Your task to perform on an android device: Clear all items from cart on ebay.com. Search for "alienware area 51" on ebay.com, select the first entry, and add it to the cart. Image 0: 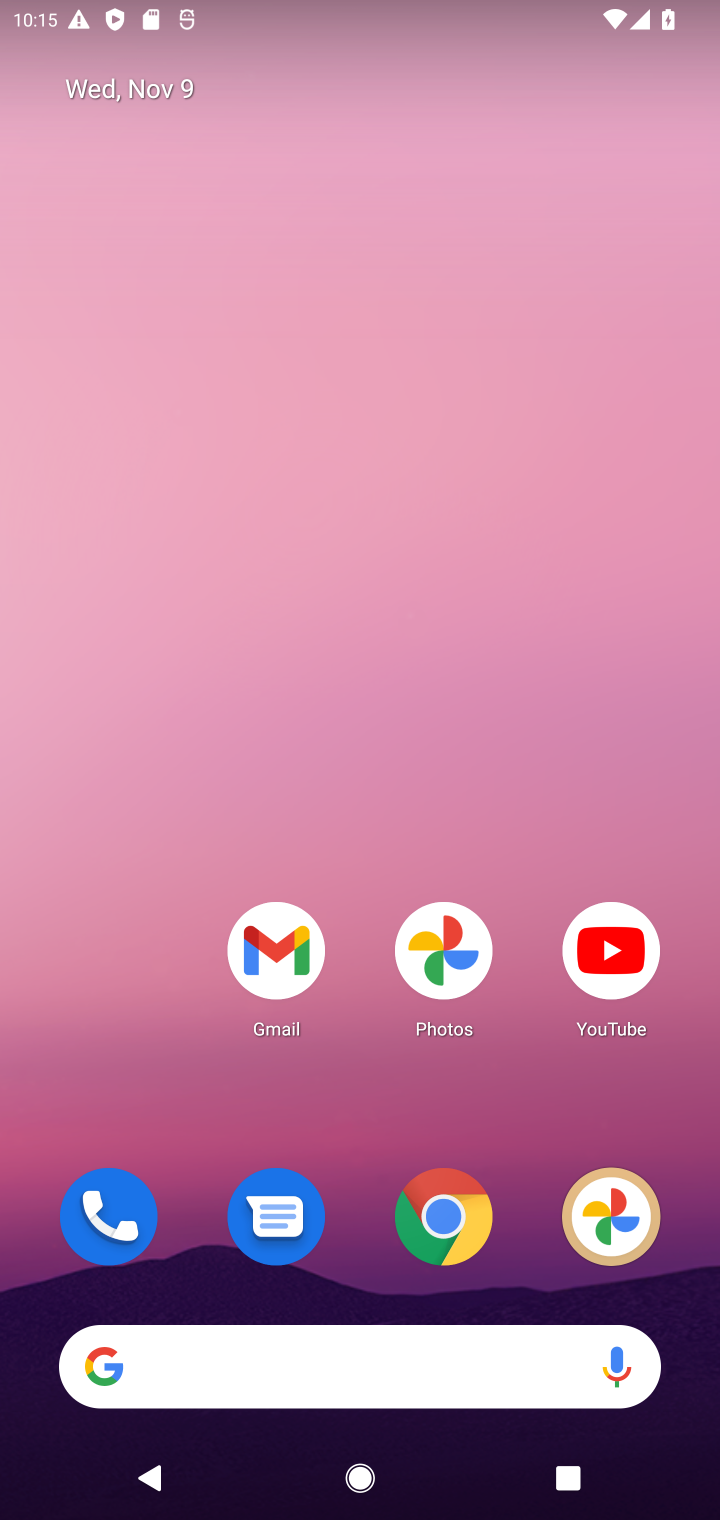
Step 0: drag from (346, 1129) to (344, 33)
Your task to perform on an android device: Clear all items from cart on ebay.com. Search for "alienware area 51" on ebay.com, select the first entry, and add it to the cart. Image 1: 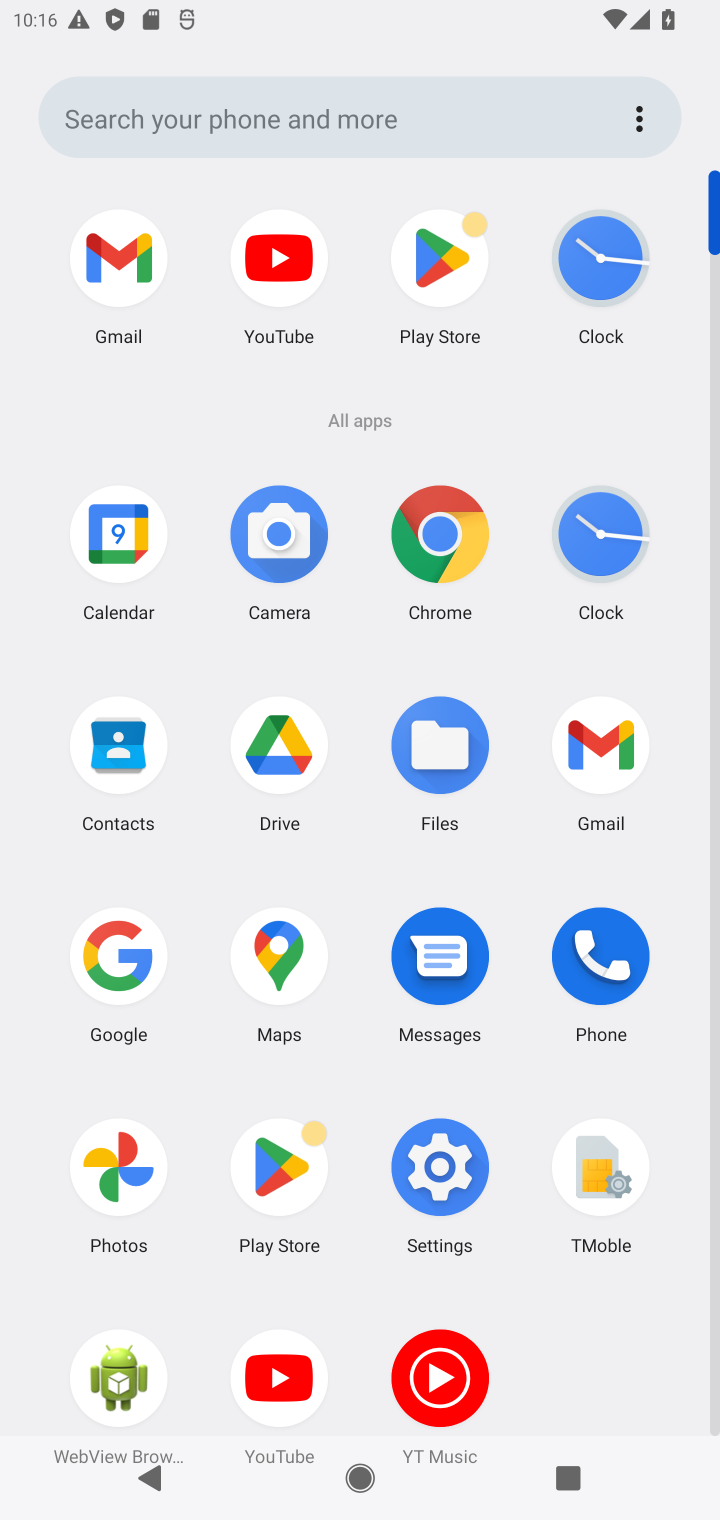
Step 1: click (439, 536)
Your task to perform on an android device: Clear all items from cart on ebay.com. Search for "alienware area 51" on ebay.com, select the first entry, and add it to the cart. Image 2: 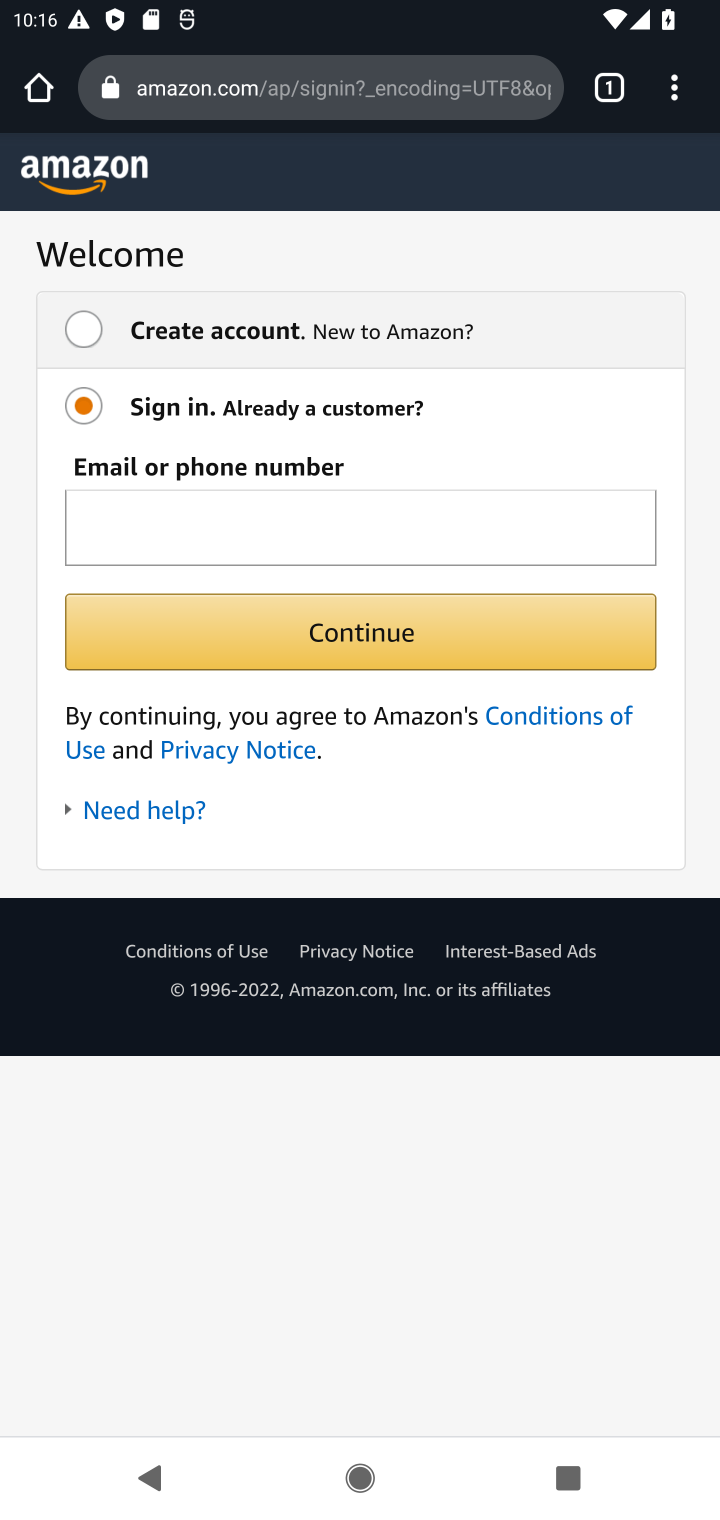
Step 2: click (284, 88)
Your task to perform on an android device: Clear all items from cart on ebay.com. Search for "alienware area 51" on ebay.com, select the first entry, and add it to the cart. Image 3: 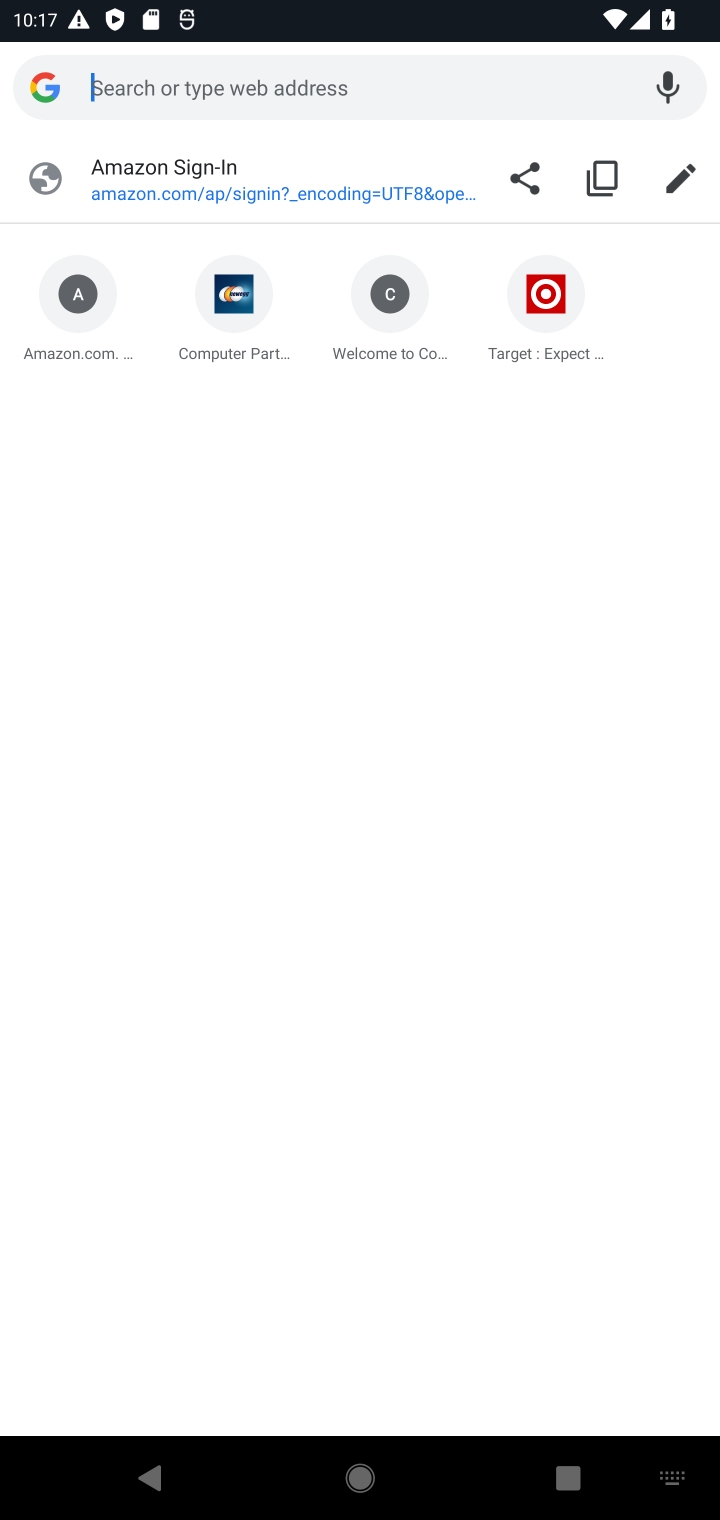
Step 3: type "ebay.com"
Your task to perform on an android device: Clear all items from cart on ebay.com. Search for "alienware area 51" on ebay.com, select the first entry, and add it to the cart. Image 4: 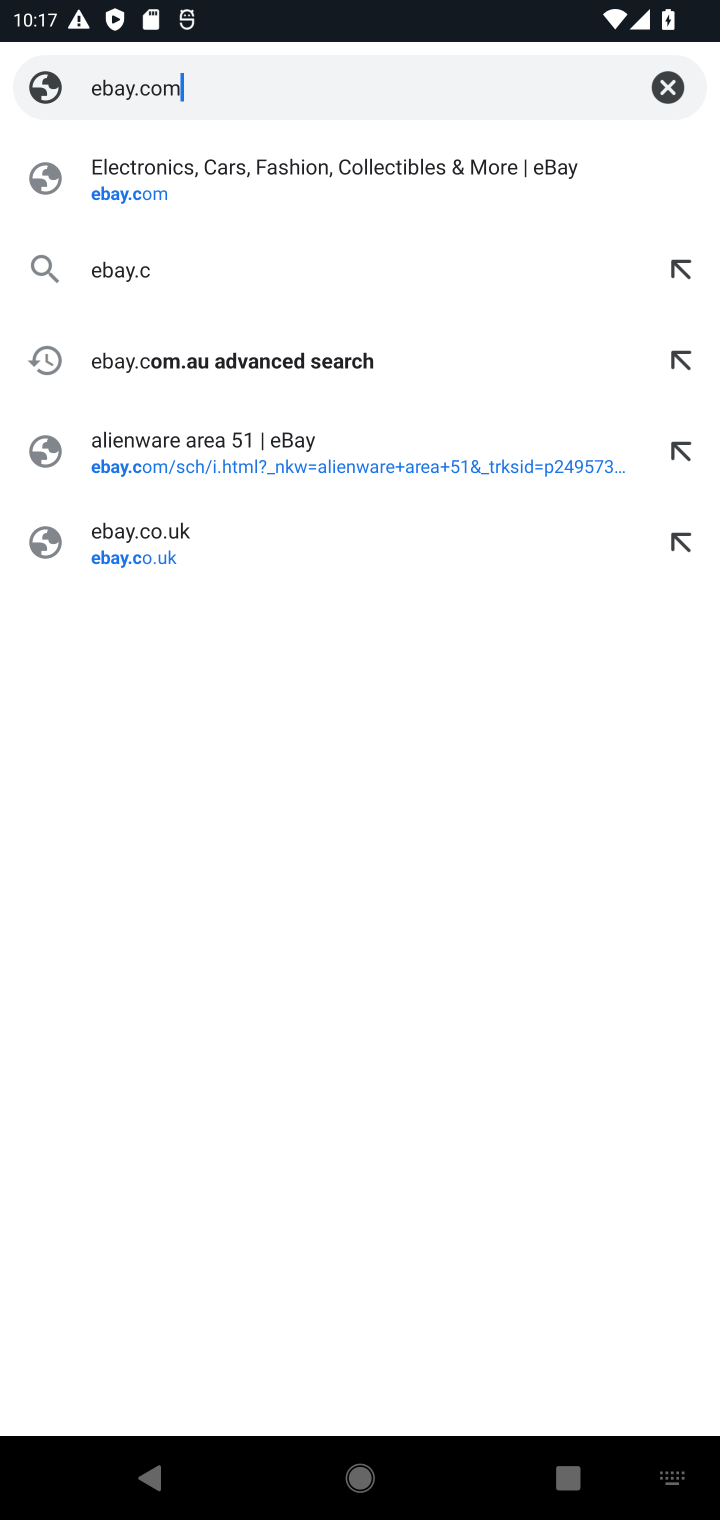
Step 4: press enter
Your task to perform on an android device: Clear all items from cart on ebay.com. Search for "alienware area 51" on ebay.com, select the first entry, and add it to the cart. Image 5: 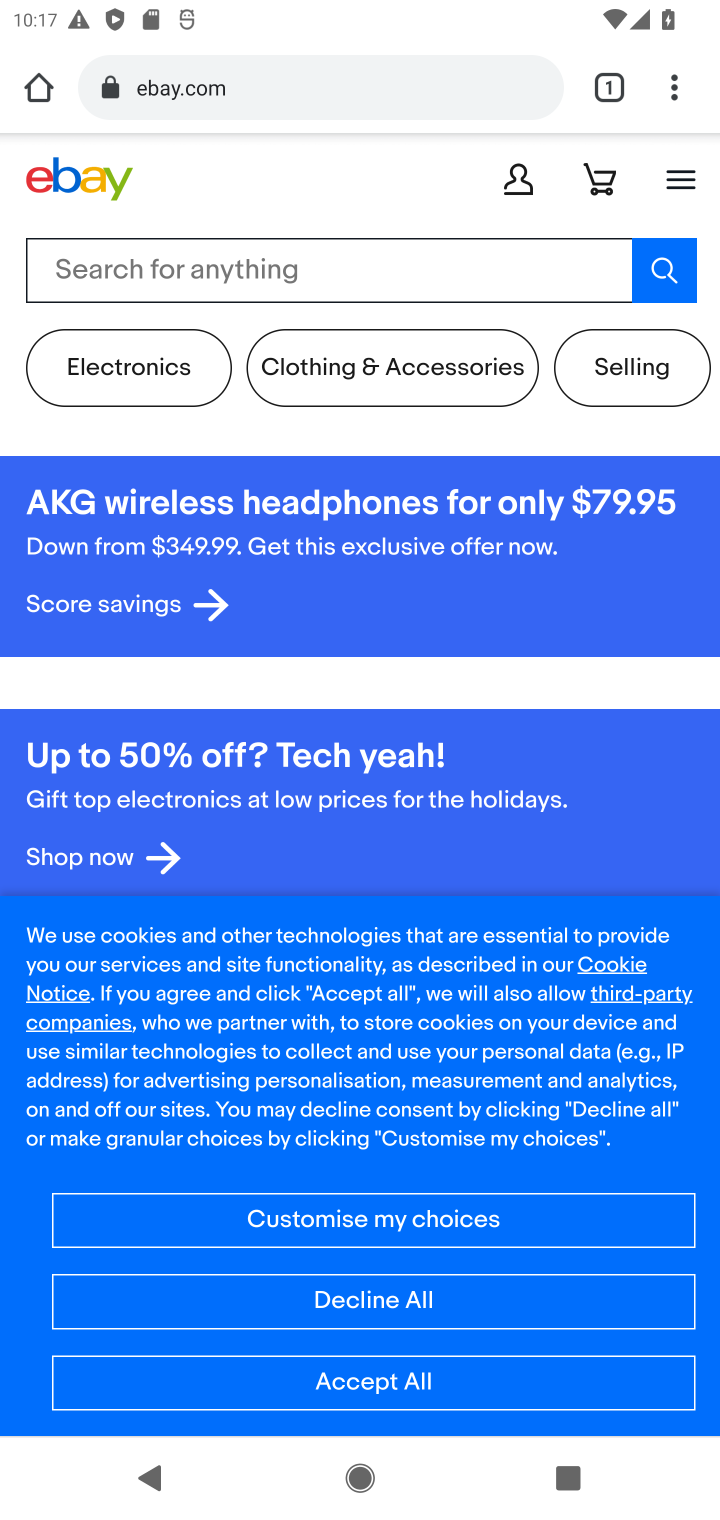
Step 5: click (608, 168)
Your task to perform on an android device: Clear all items from cart on ebay.com. Search for "alienware area 51" on ebay.com, select the first entry, and add it to the cart. Image 6: 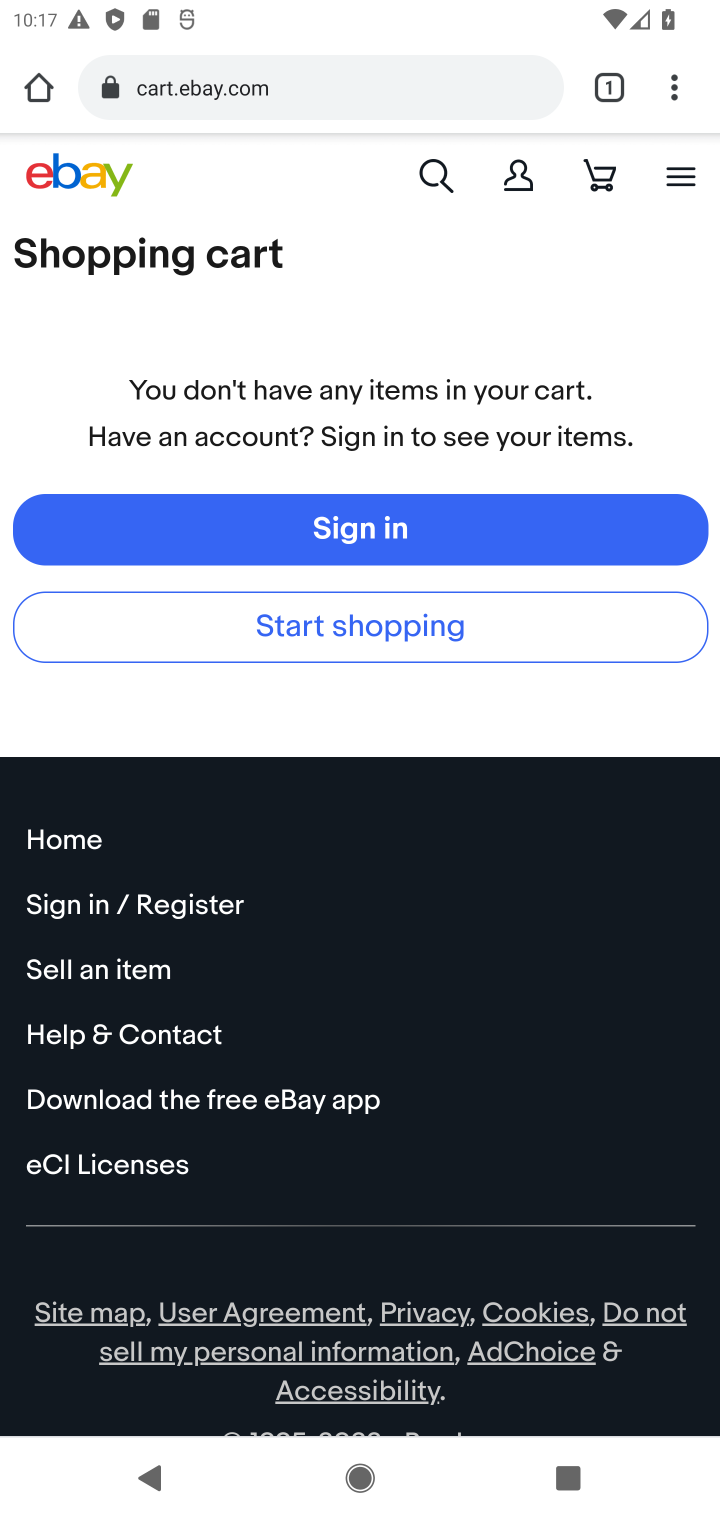
Step 6: click (449, 180)
Your task to perform on an android device: Clear all items from cart on ebay.com. Search for "alienware area 51" on ebay.com, select the first entry, and add it to the cart. Image 7: 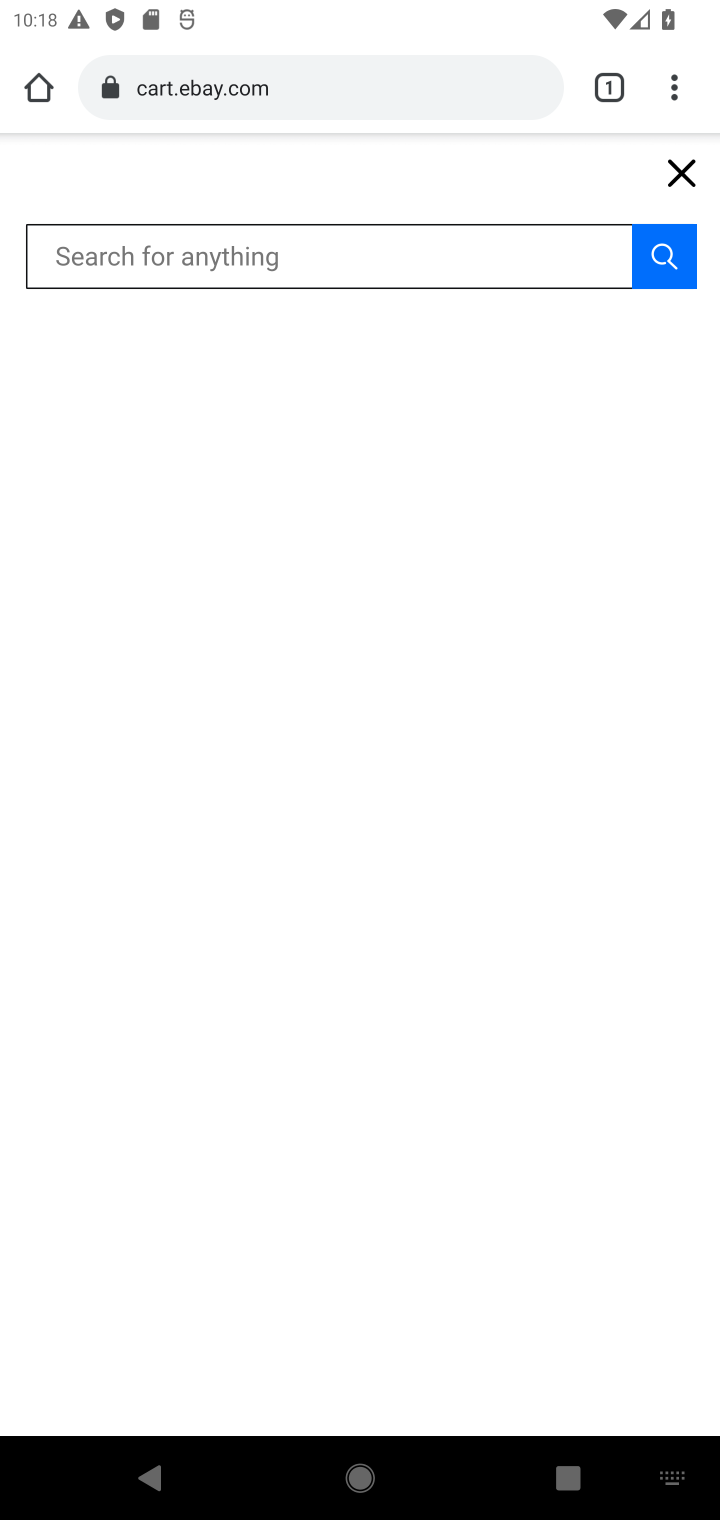
Step 7: type "alienware area 51"
Your task to perform on an android device: Clear all items from cart on ebay.com. Search for "alienware area 51" on ebay.com, select the first entry, and add it to the cart. Image 8: 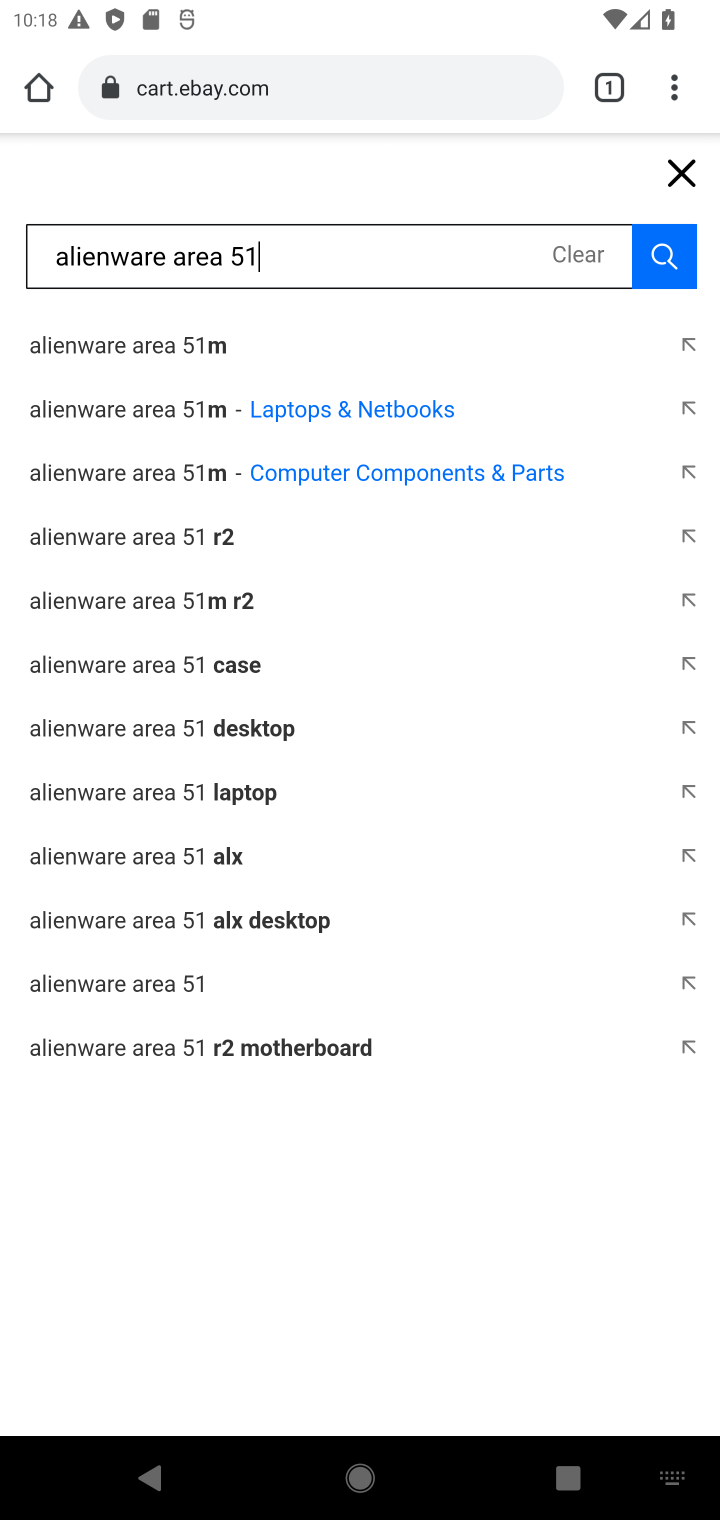
Step 8: press enter
Your task to perform on an android device: Clear all items from cart on ebay.com. Search for "alienware area 51" on ebay.com, select the first entry, and add it to the cart. Image 9: 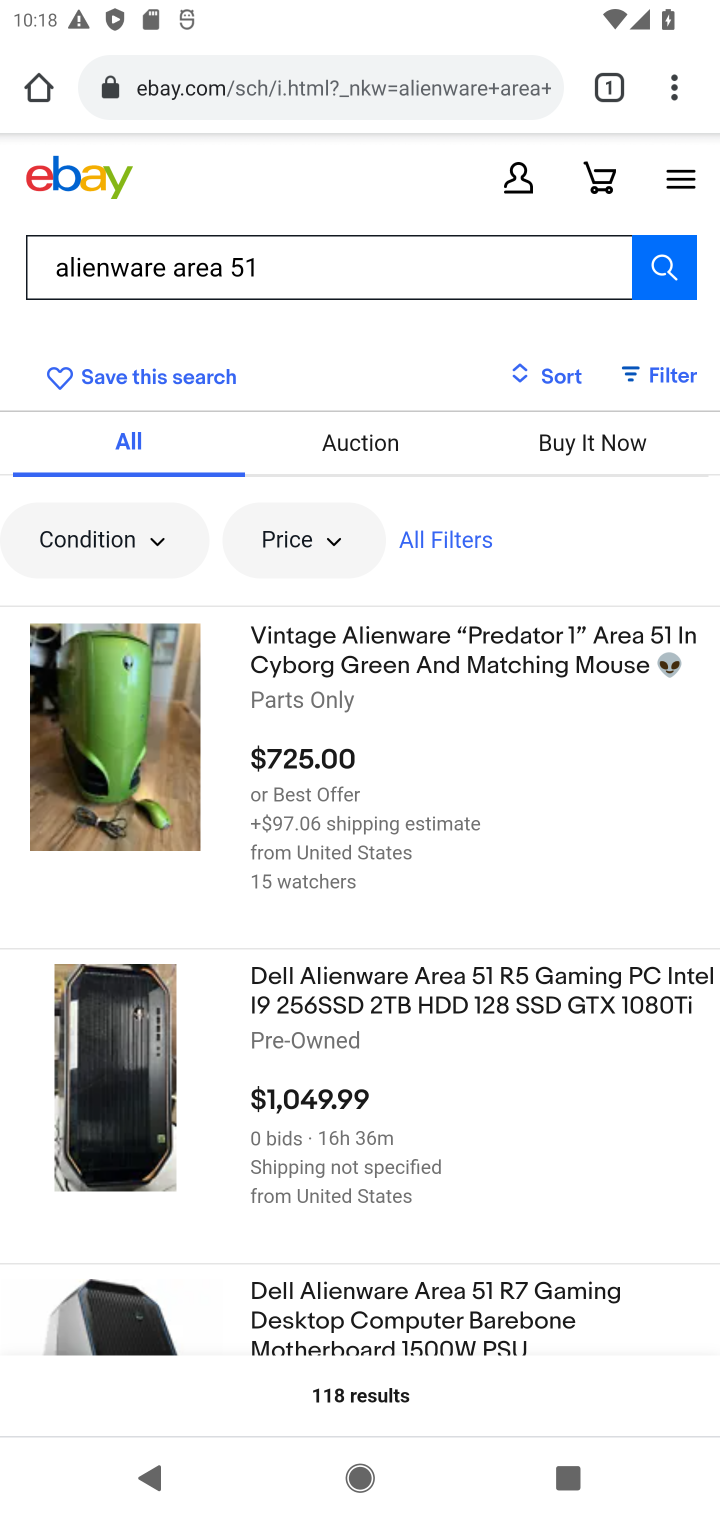
Step 9: click (130, 724)
Your task to perform on an android device: Clear all items from cart on ebay.com. Search for "alienware area 51" on ebay.com, select the first entry, and add it to the cart. Image 10: 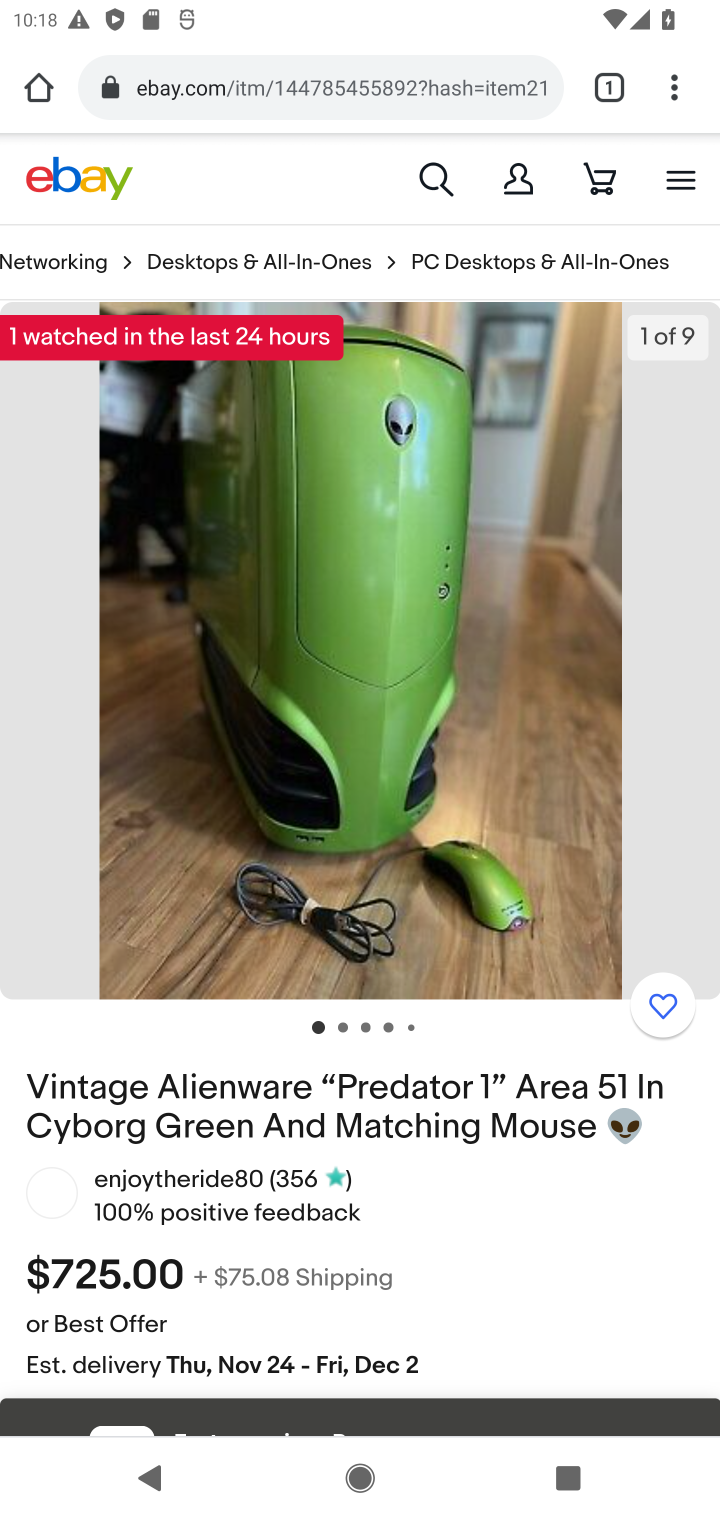
Step 10: drag from (425, 949) to (330, 158)
Your task to perform on an android device: Clear all items from cart on ebay.com. Search for "alienware area 51" on ebay.com, select the first entry, and add it to the cart. Image 11: 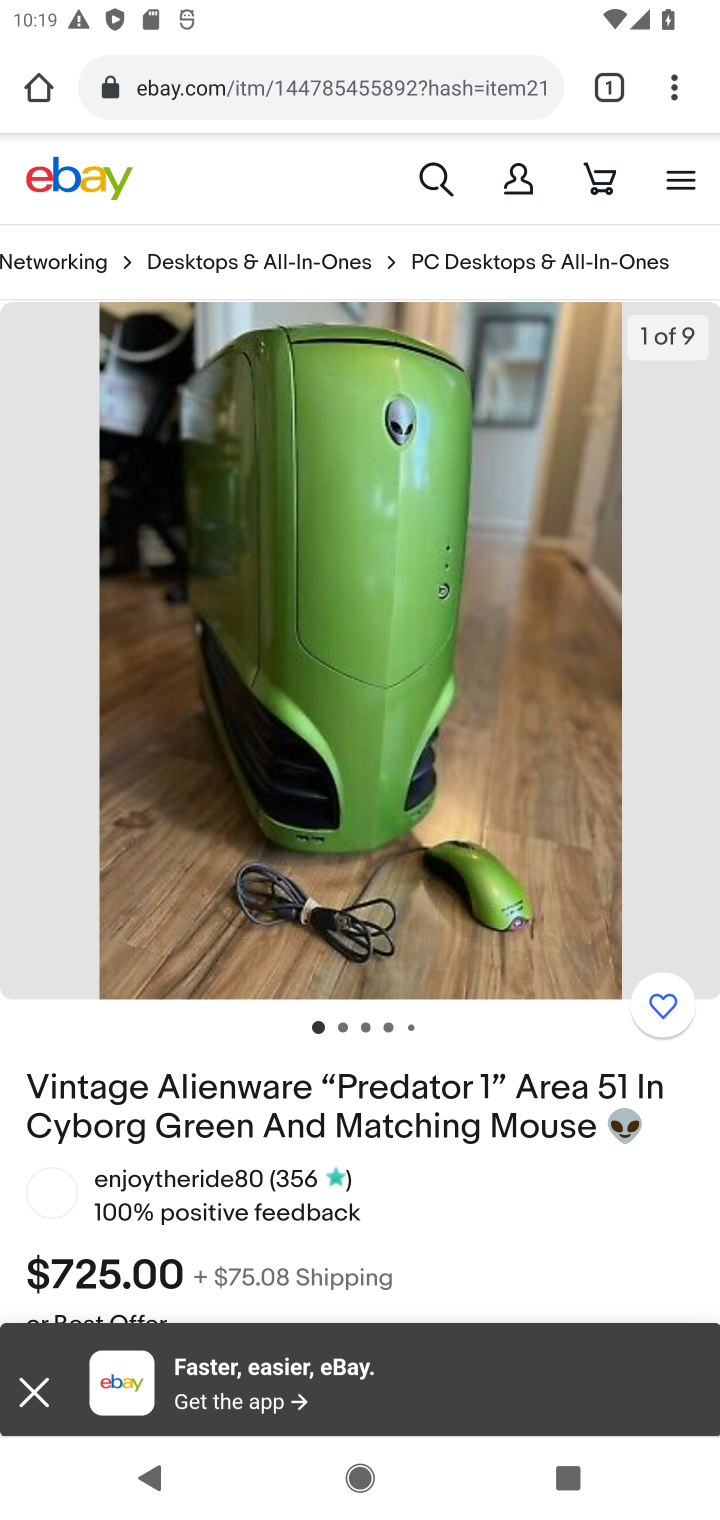
Step 11: drag from (386, 952) to (378, 228)
Your task to perform on an android device: Clear all items from cart on ebay.com. Search for "alienware area 51" on ebay.com, select the first entry, and add it to the cart. Image 12: 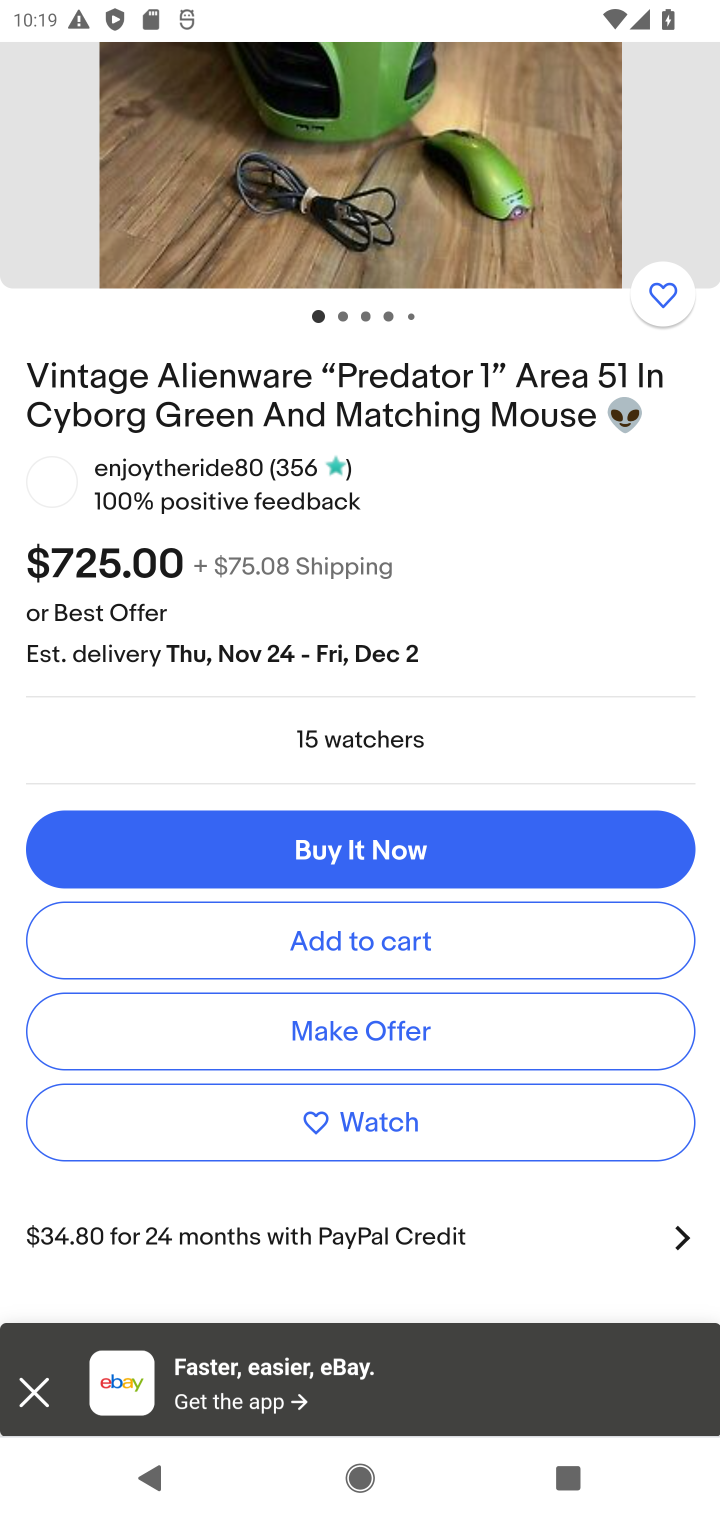
Step 12: click (412, 922)
Your task to perform on an android device: Clear all items from cart on ebay.com. Search for "alienware area 51" on ebay.com, select the first entry, and add it to the cart. Image 13: 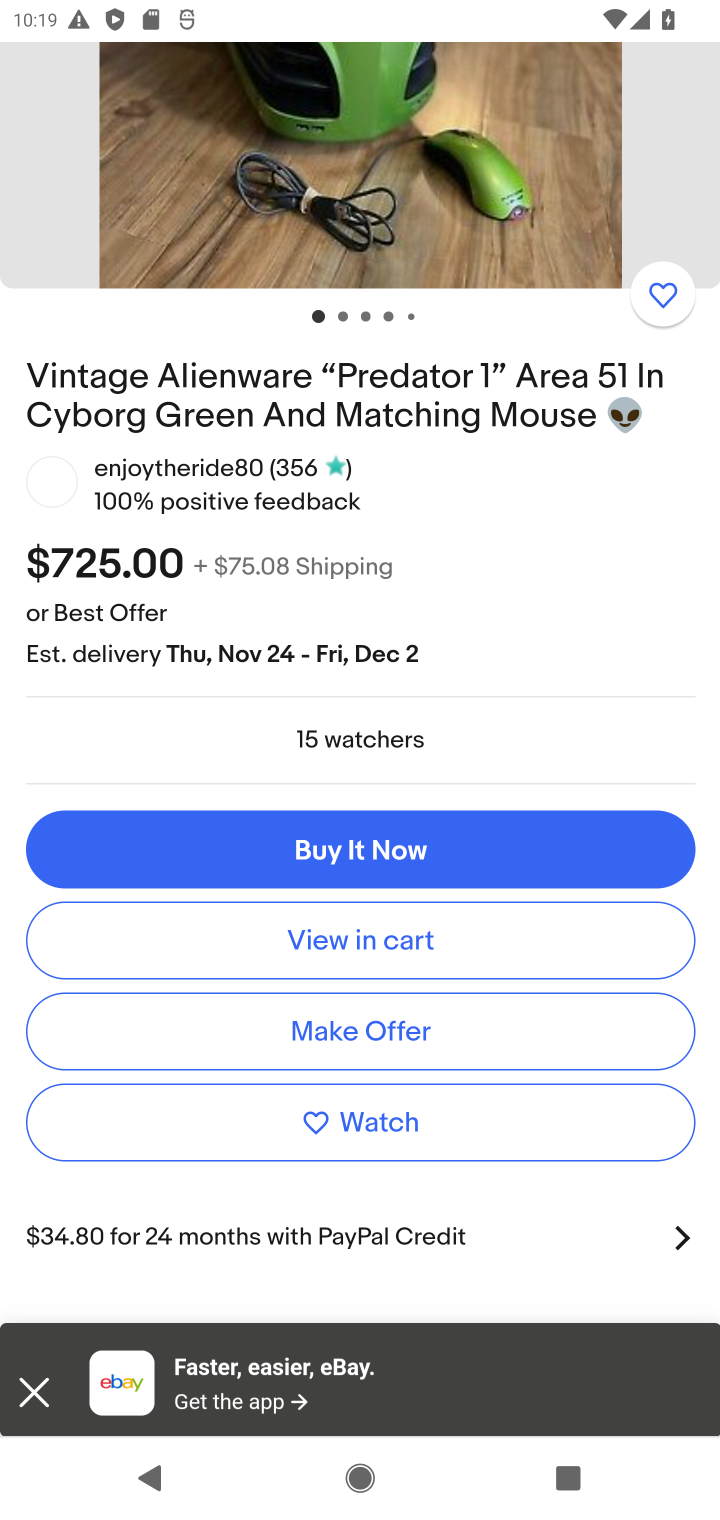
Step 13: task complete